Your task to perform on an android device: Show the shopping cart on newegg.com. Add razer blade to the cart on newegg.com Image 0: 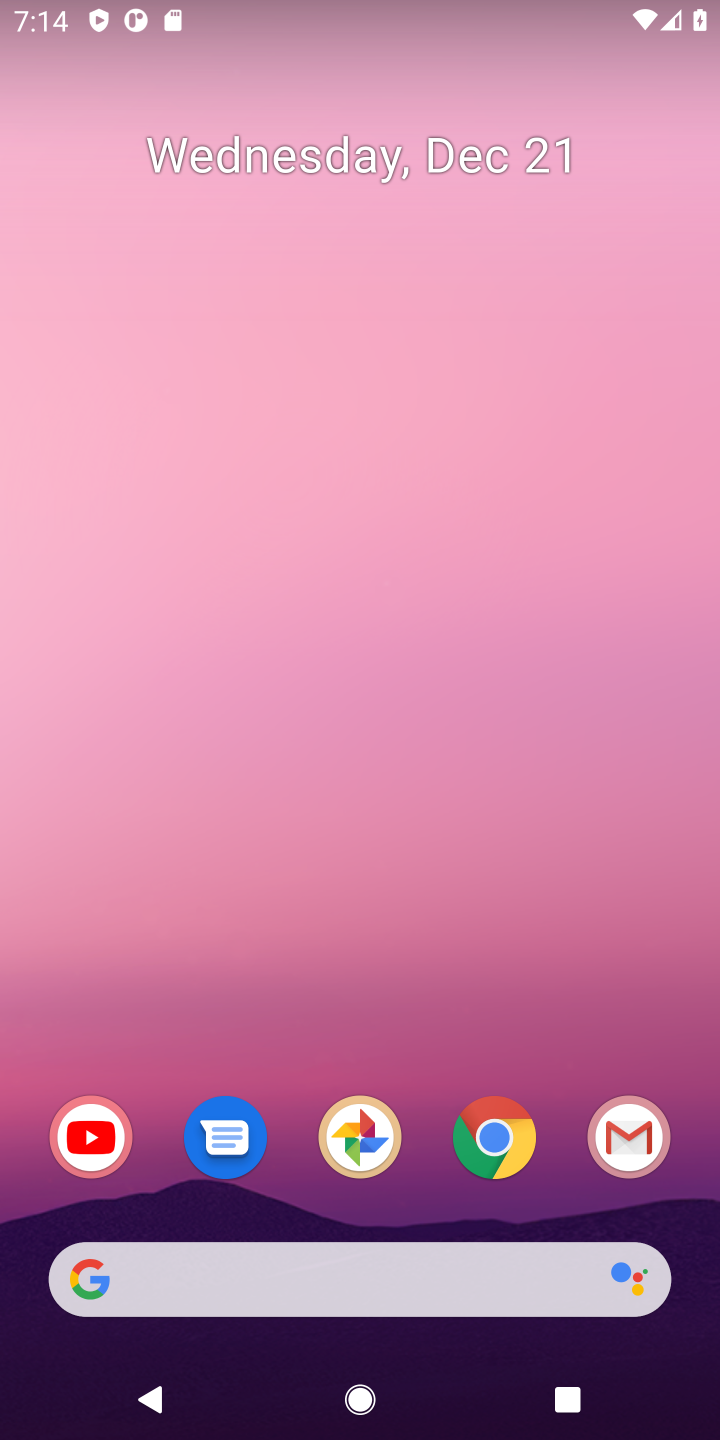
Step 0: click (485, 1150)
Your task to perform on an android device: Show the shopping cart on newegg.com. Add razer blade to the cart on newegg.com Image 1: 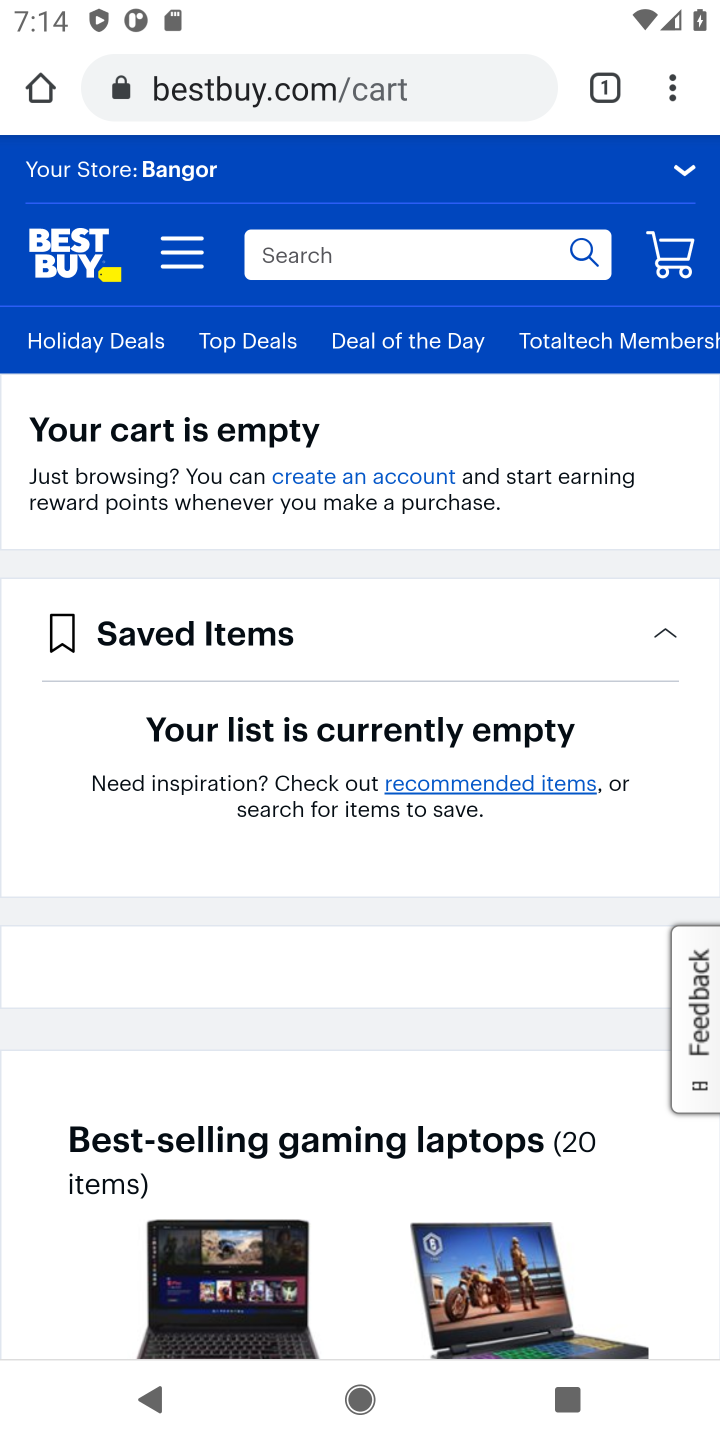
Step 1: click (291, 90)
Your task to perform on an android device: Show the shopping cart on newegg.com. Add razer blade to the cart on newegg.com Image 2: 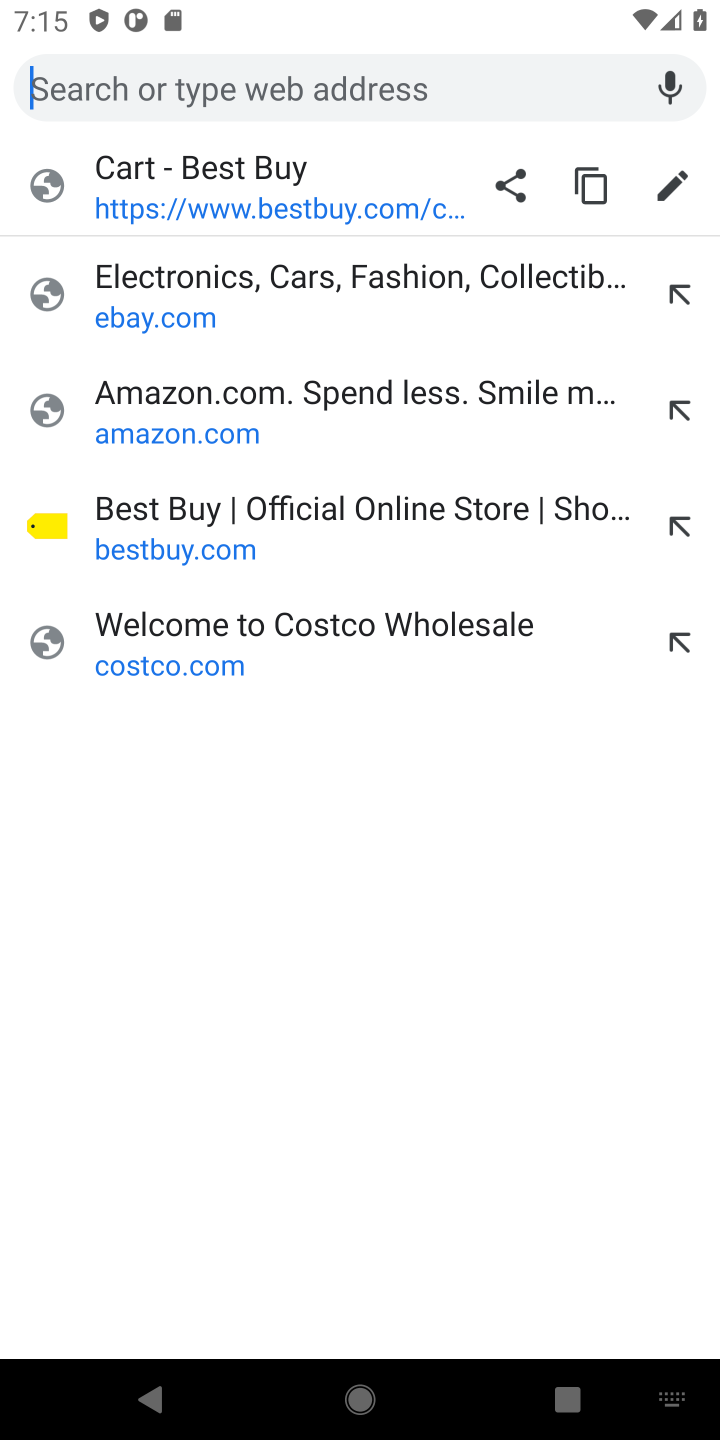
Step 2: type "newegg.com"
Your task to perform on an android device: Show the shopping cart on newegg.com. Add razer blade to the cart on newegg.com Image 3: 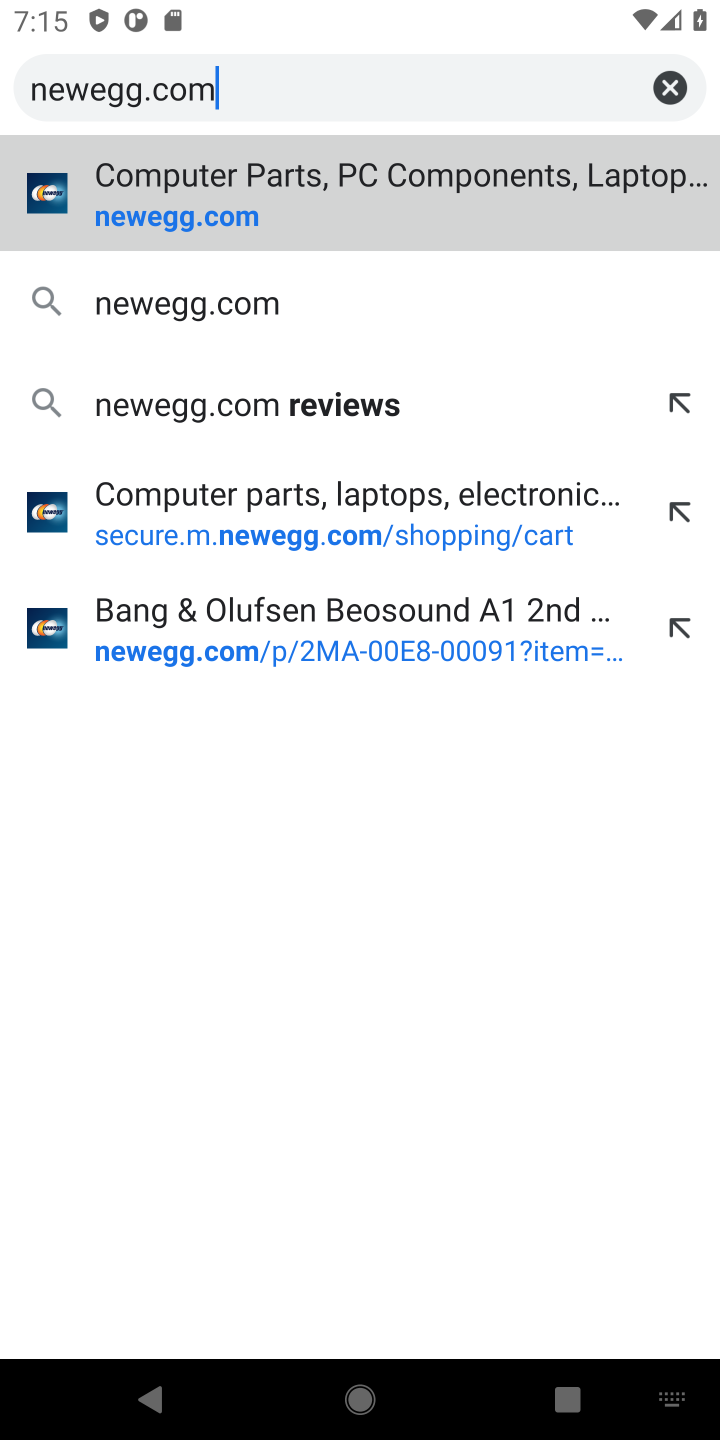
Step 3: click (177, 228)
Your task to perform on an android device: Show the shopping cart on newegg.com. Add razer blade to the cart on newegg.com Image 4: 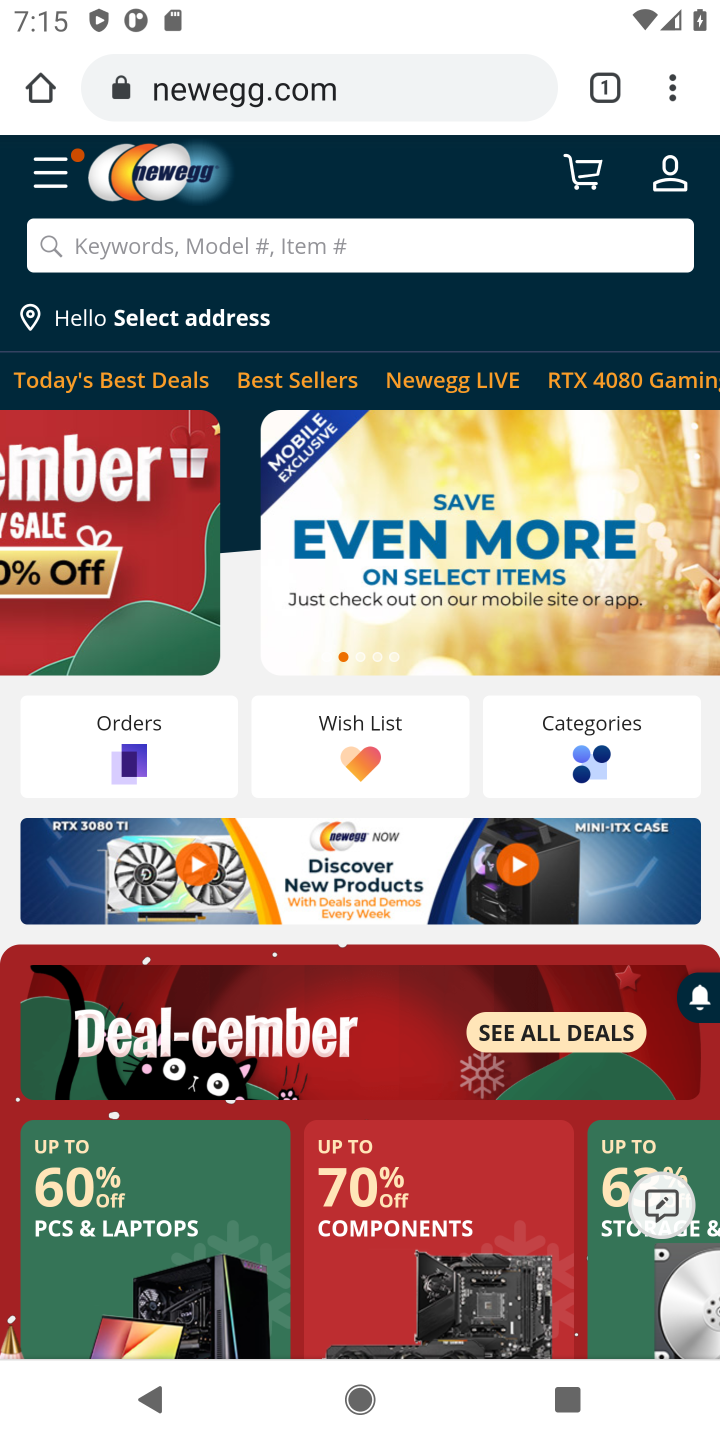
Step 4: click (585, 189)
Your task to perform on an android device: Show the shopping cart on newegg.com. Add razer blade to the cart on newegg.com Image 5: 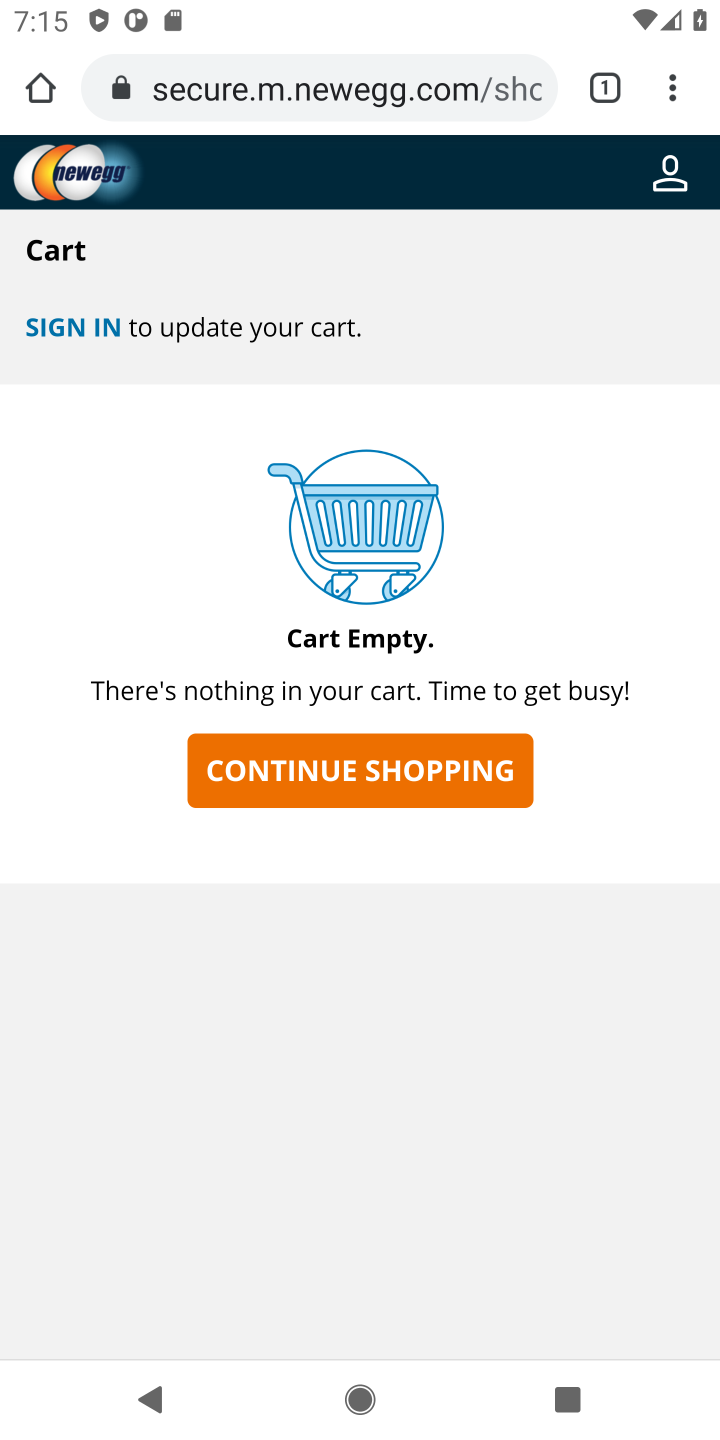
Step 5: click (389, 780)
Your task to perform on an android device: Show the shopping cart on newegg.com. Add razer blade to the cart on newegg.com Image 6: 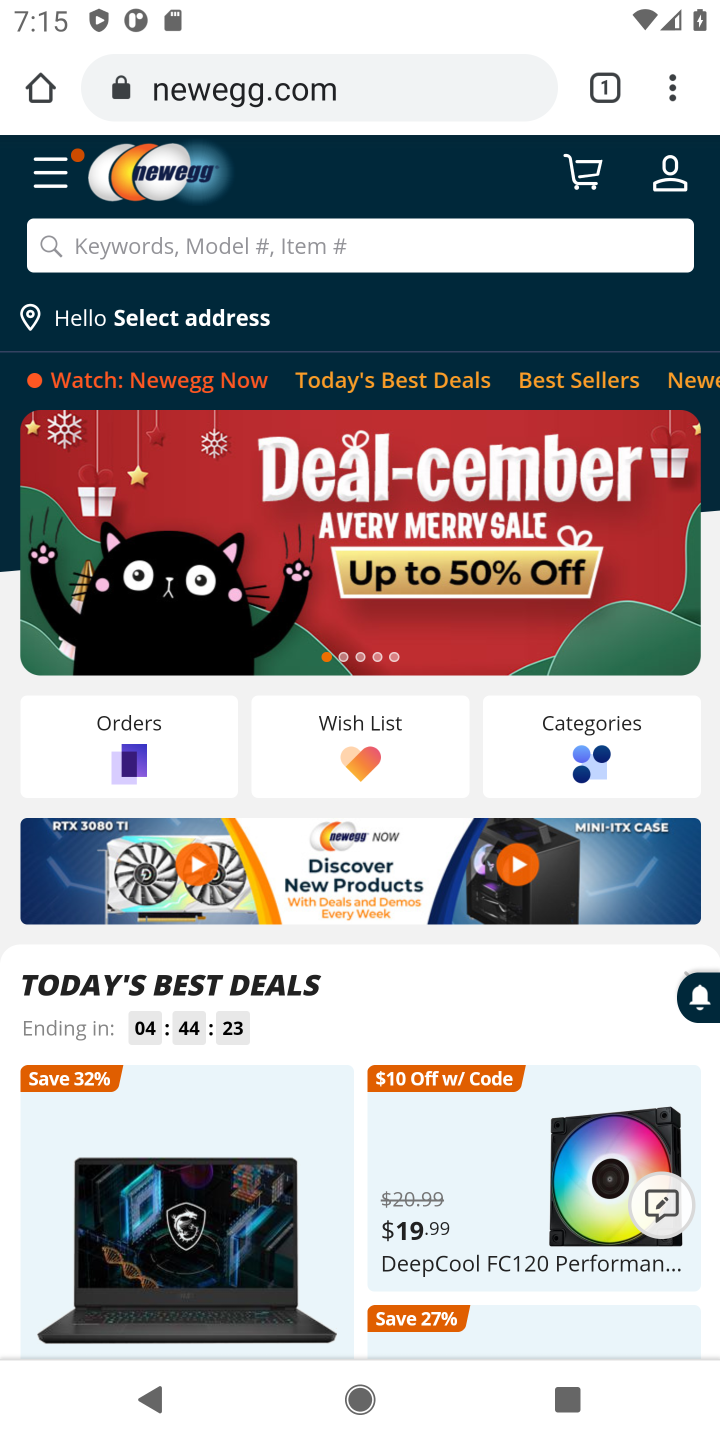
Step 6: click (257, 247)
Your task to perform on an android device: Show the shopping cart on newegg.com. Add razer blade to the cart on newegg.com Image 7: 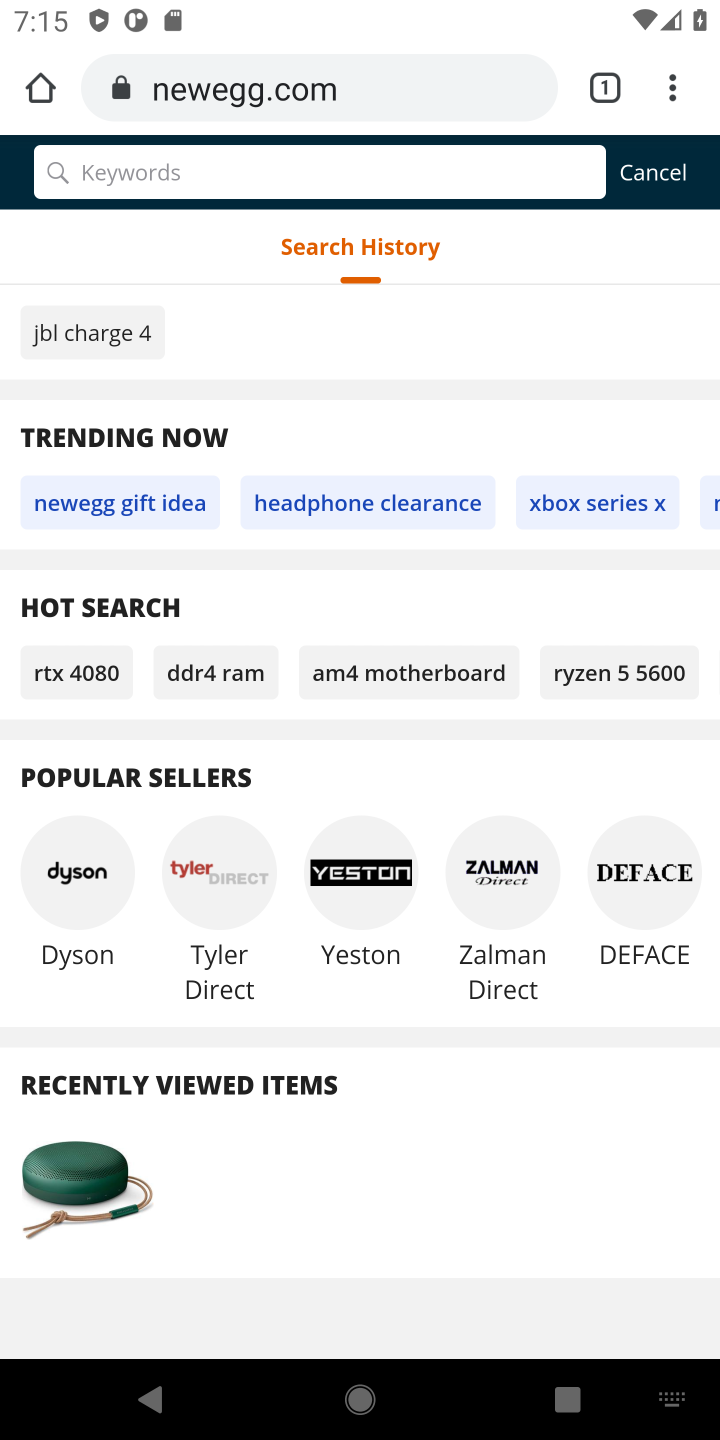
Step 7: type "razer blade"
Your task to perform on an android device: Show the shopping cart on newegg.com. Add razer blade to the cart on newegg.com Image 8: 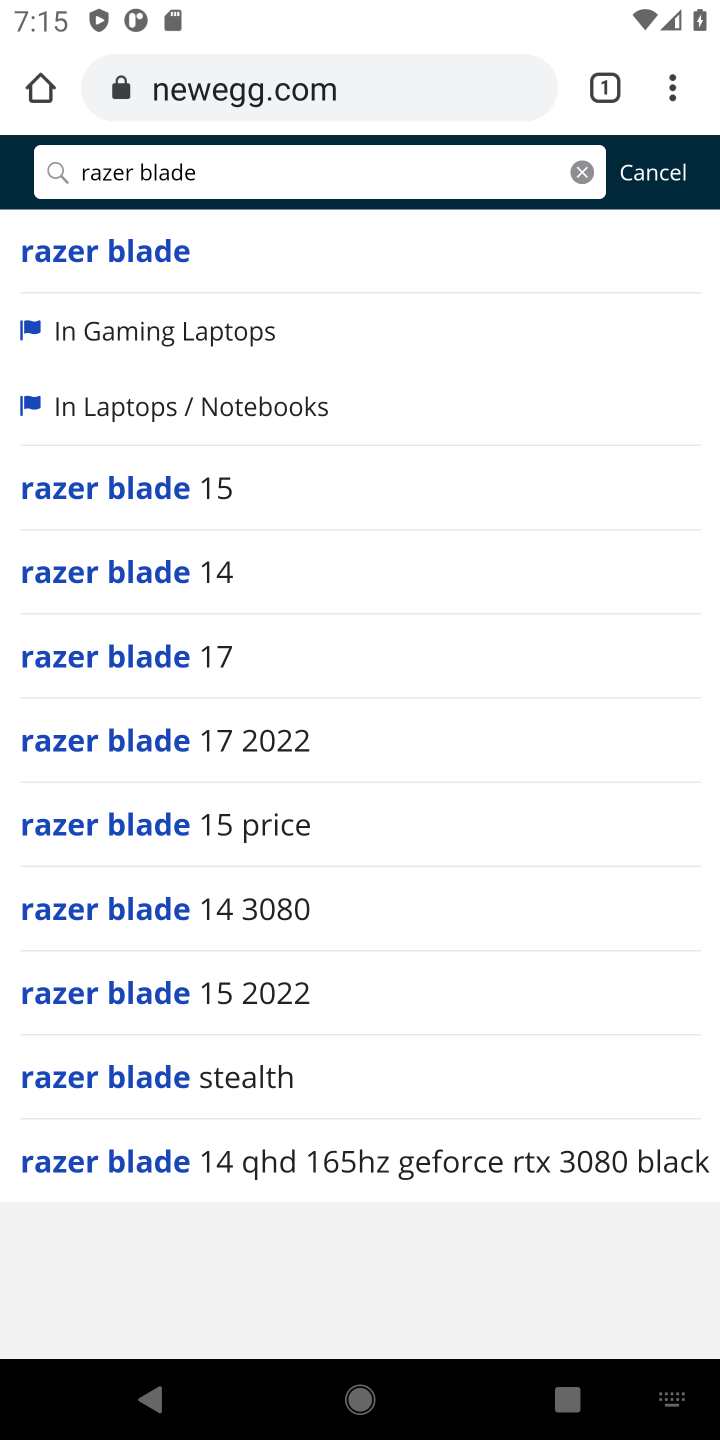
Step 8: click (146, 261)
Your task to perform on an android device: Show the shopping cart on newegg.com. Add razer blade to the cart on newegg.com Image 9: 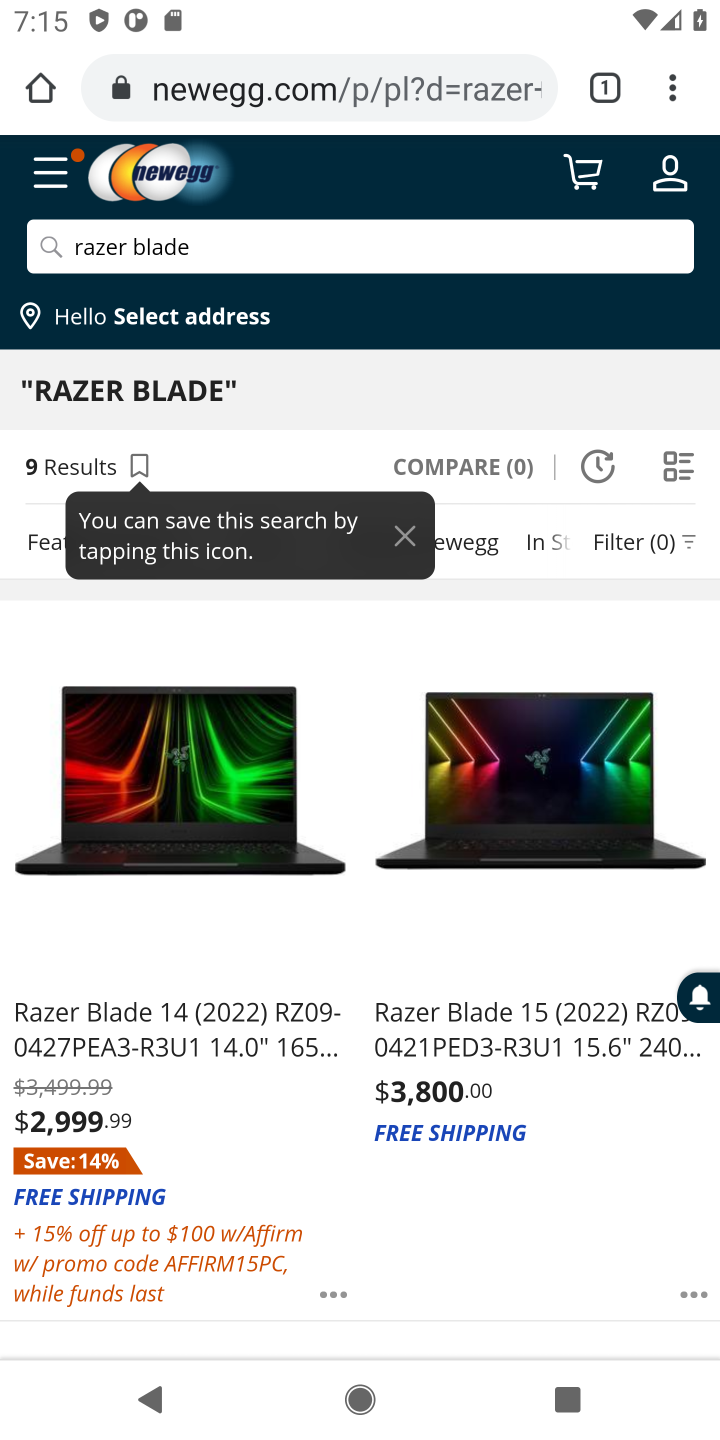
Step 9: click (119, 1054)
Your task to perform on an android device: Show the shopping cart on newegg.com. Add razer blade to the cart on newegg.com Image 10: 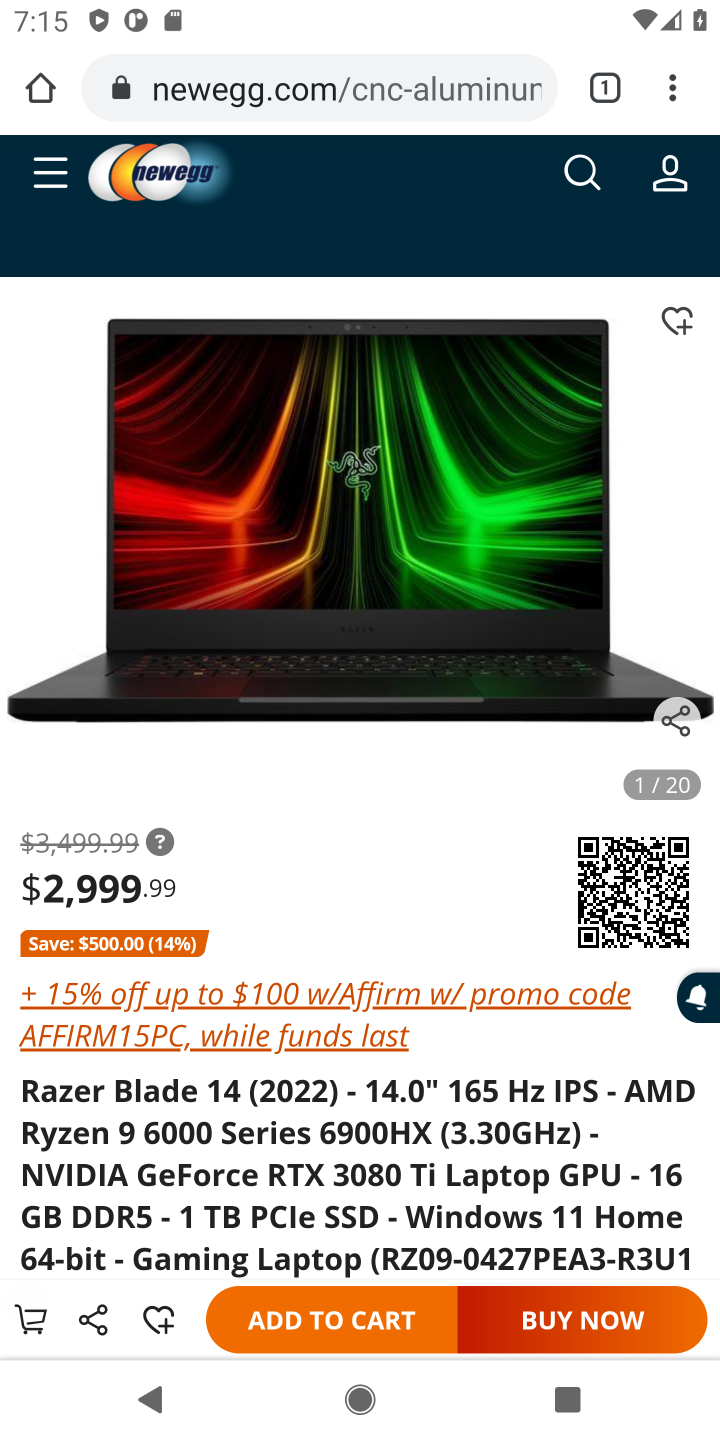
Step 10: drag from (156, 1161) to (183, 821)
Your task to perform on an android device: Show the shopping cart on newegg.com. Add razer blade to the cart on newegg.com Image 11: 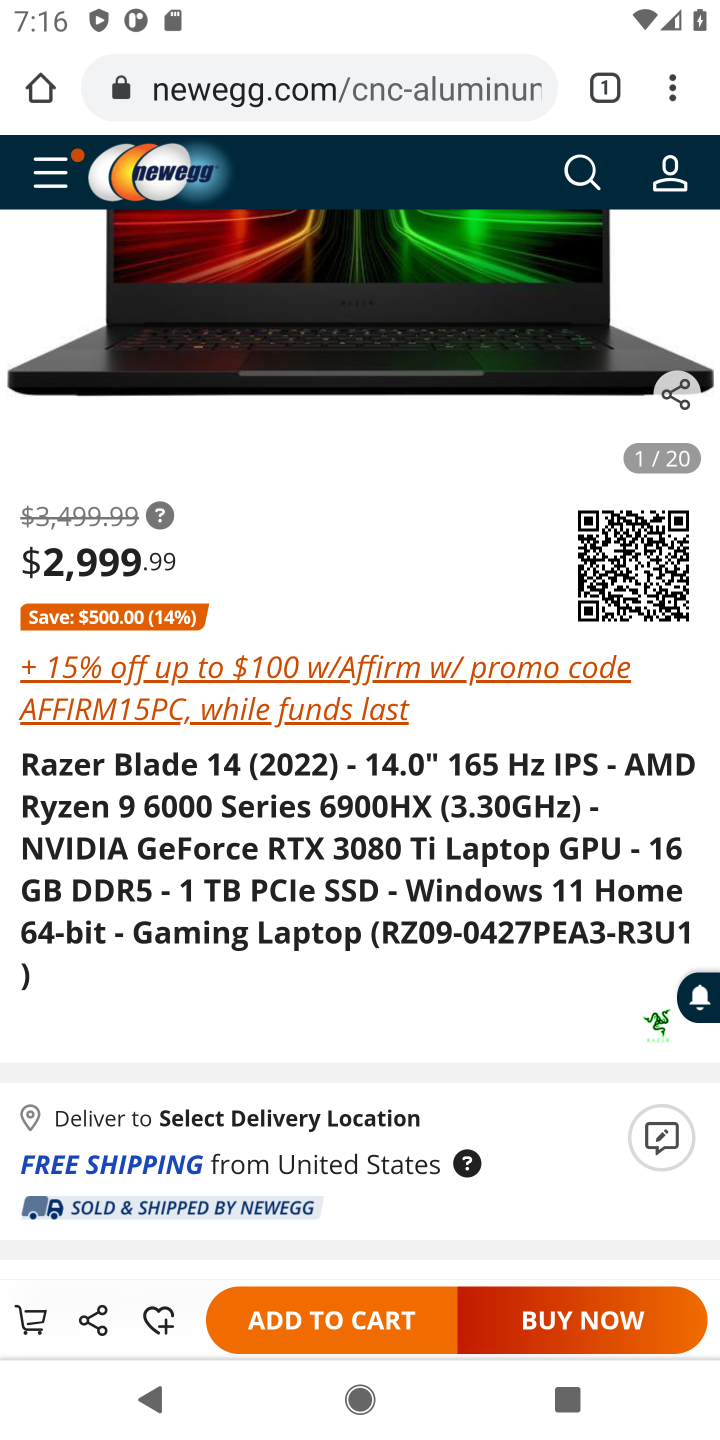
Step 11: click (299, 1322)
Your task to perform on an android device: Show the shopping cart on newegg.com. Add razer blade to the cart on newegg.com Image 12: 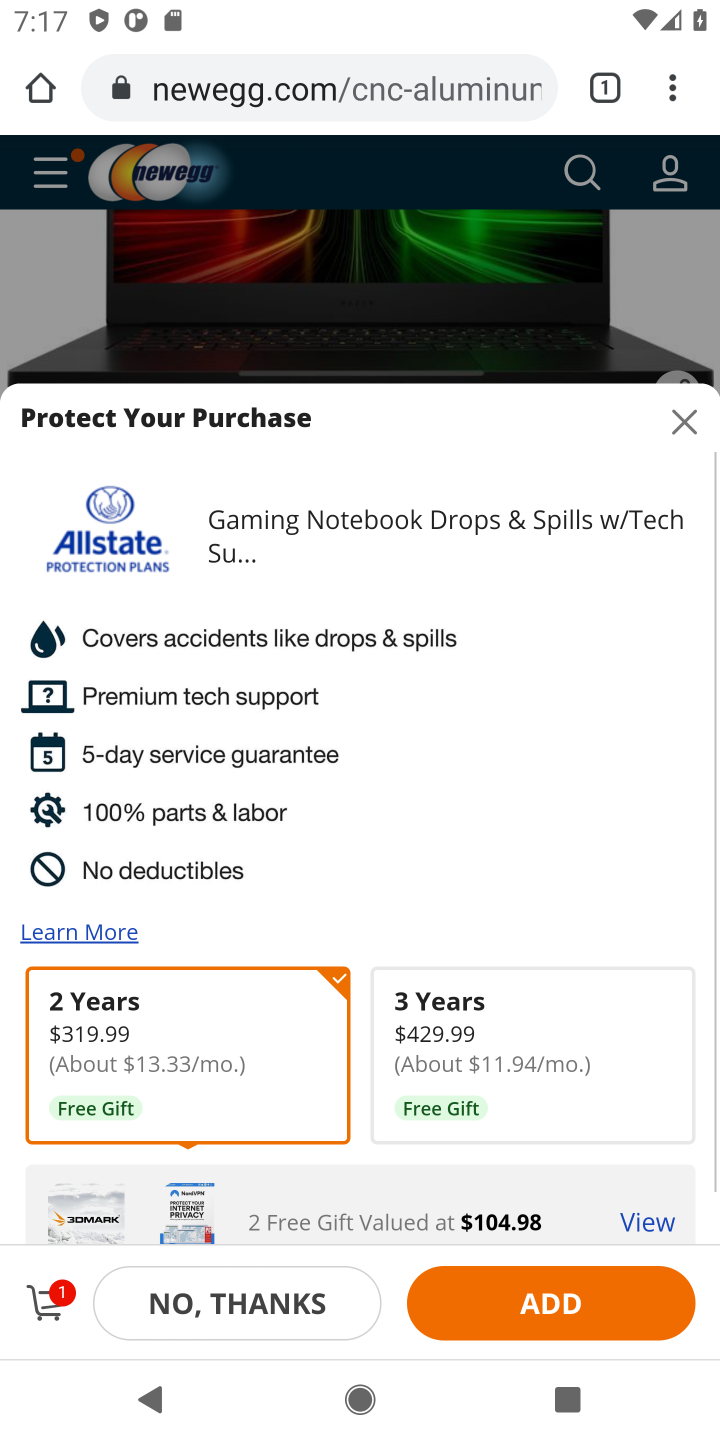
Step 12: task complete